Your task to perform on an android device: open sync settings in chrome Image 0: 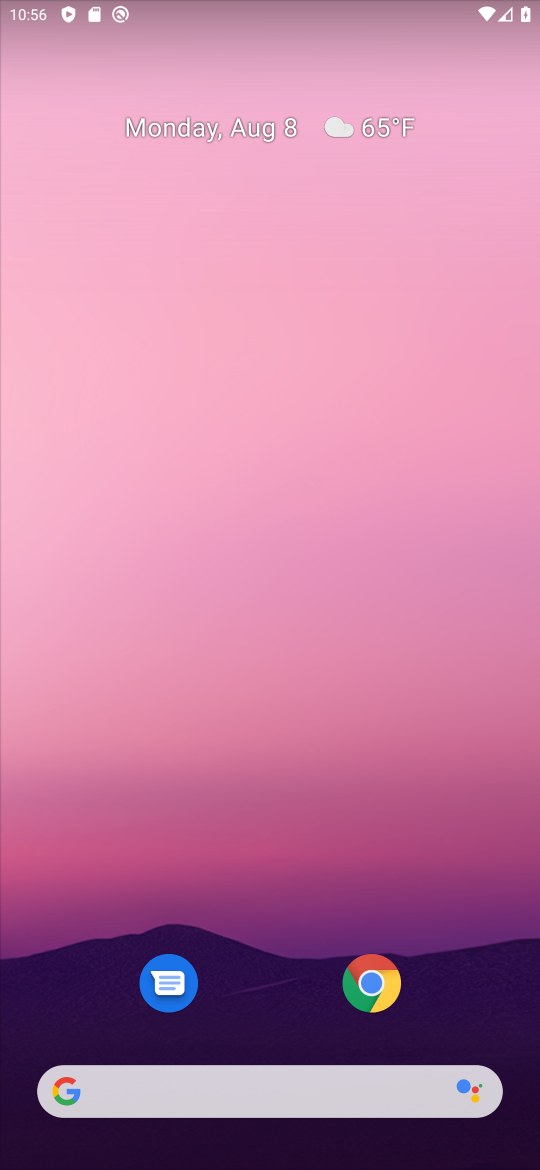
Step 0: click (386, 988)
Your task to perform on an android device: open sync settings in chrome Image 1: 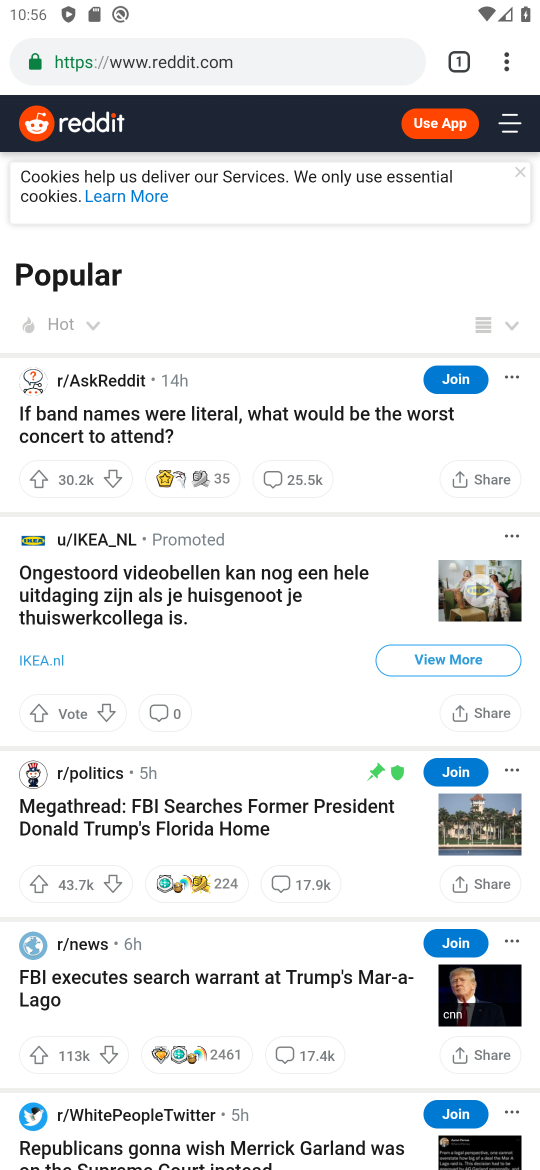
Step 1: click (517, 60)
Your task to perform on an android device: open sync settings in chrome Image 2: 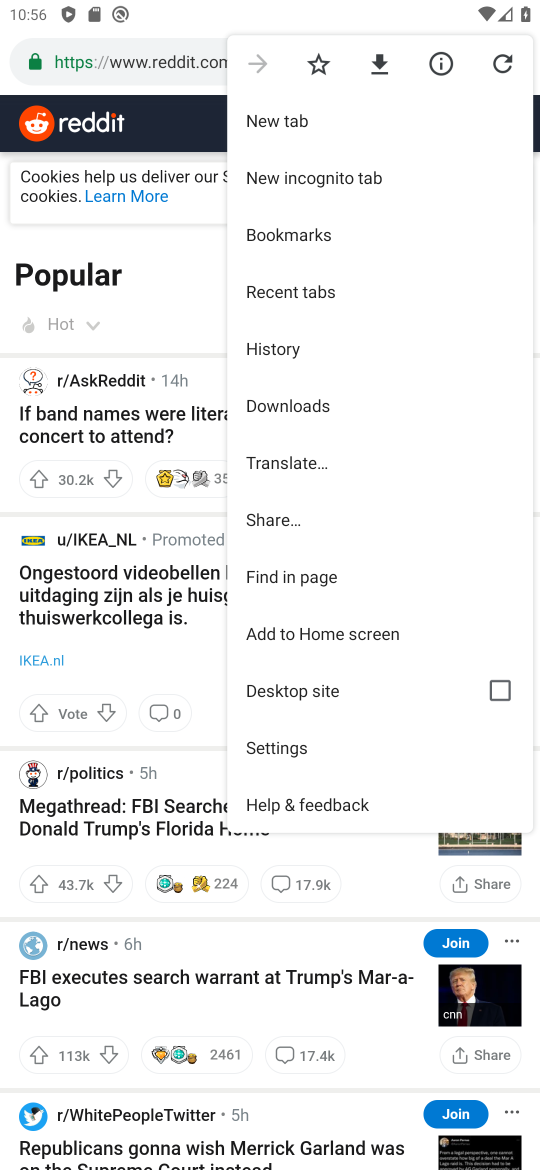
Step 2: click (286, 731)
Your task to perform on an android device: open sync settings in chrome Image 3: 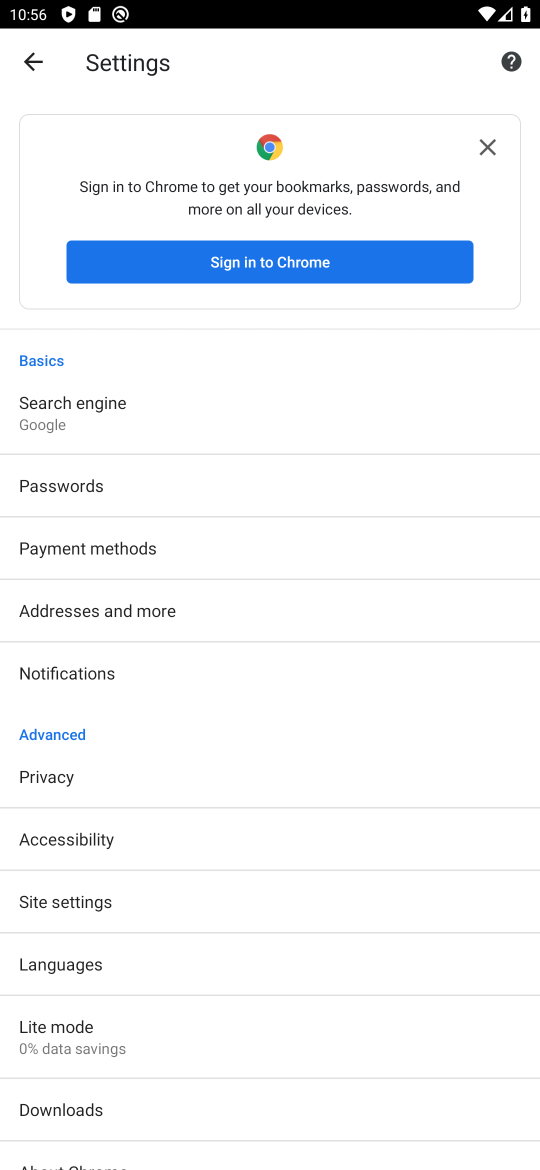
Step 3: task complete